Your task to perform on an android device: toggle translation in the chrome app Image 0: 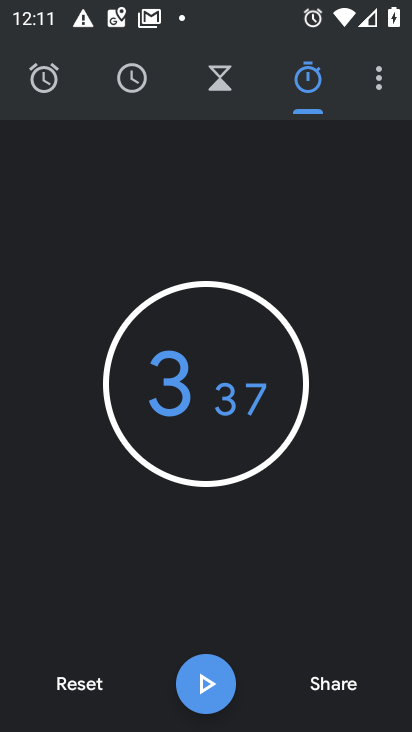
Step 0: press home button
Your task to perform on an android device: toggle translation in the chrome app Image 1: 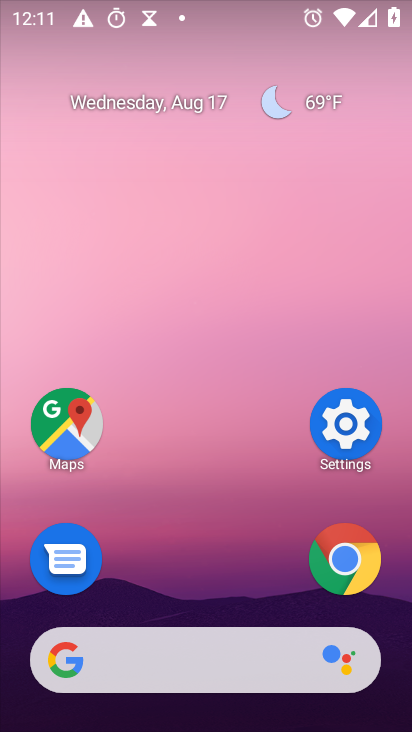
Step 1: click (351, 561)
Your task to perform on an android device: toggle translation in the chrome app Image 2: 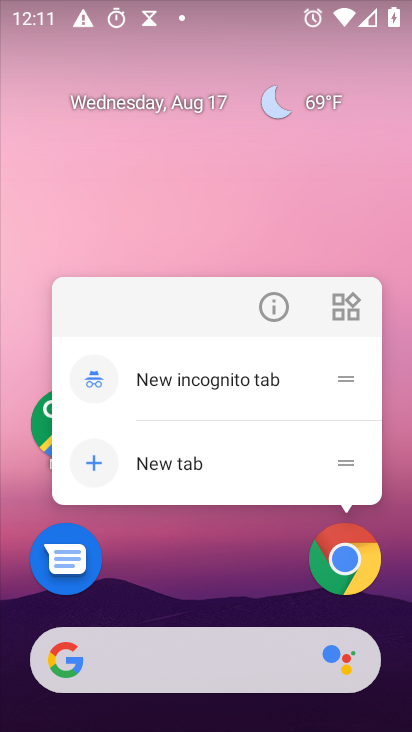
Step 2: click (351, 562)
Your task to perform on an android device: toggle translation in the chrome app Image 3: 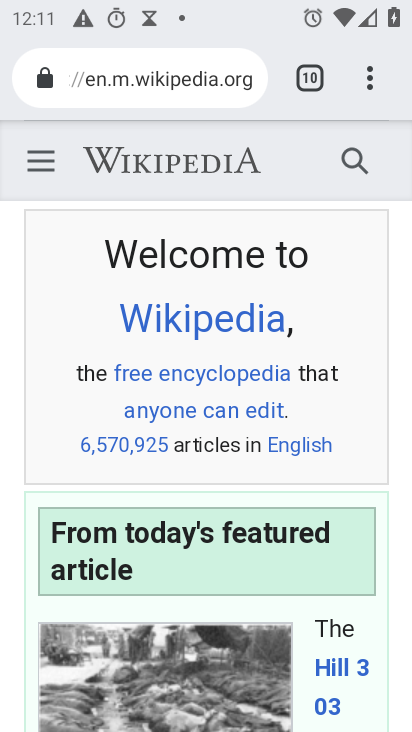
Step 3: drag from (366, 73) to (259, 627)
Your task to perform on an android device: toggle translation in the chrome app Image 4: 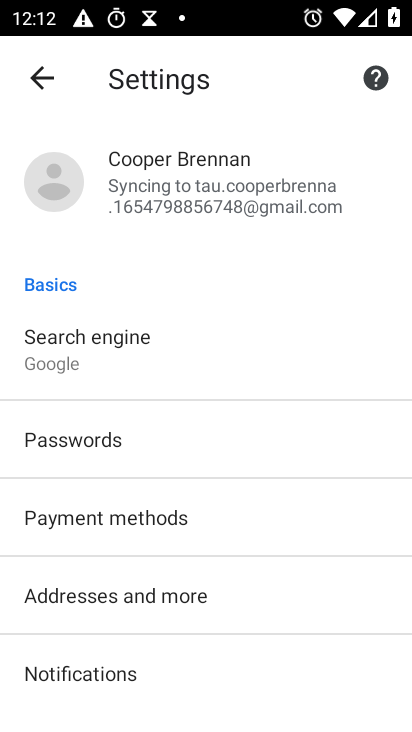
Step 4: drag from (196, 595) to (274, 137)
Your task to perform on an android device: toggle translation in the chrome app Image 5: 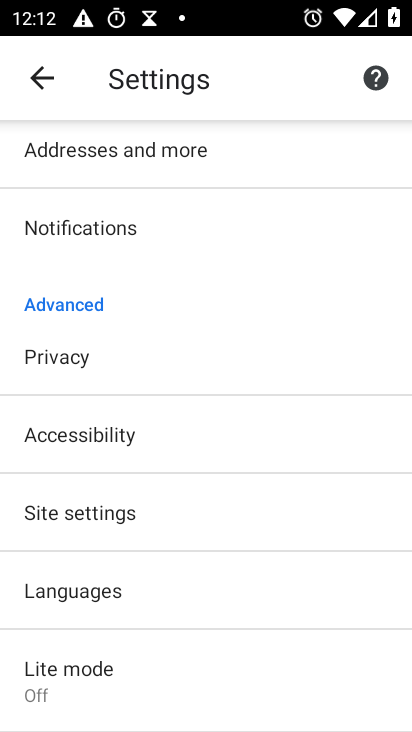
Step 5: click (88, 599)
Your task to perform on an android device: toggle translation in the chrome app Image 6: 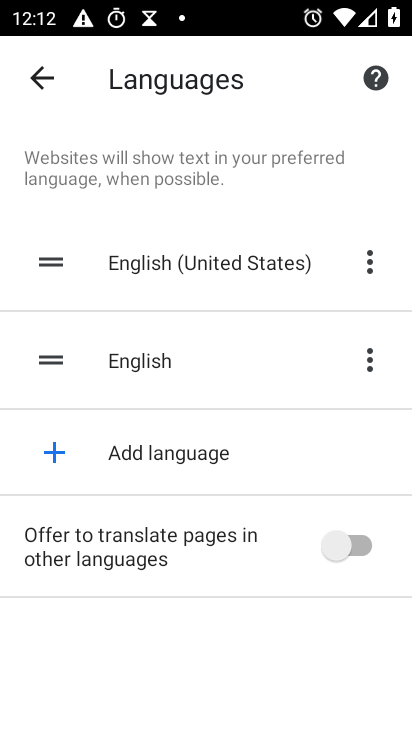
Step 6: click (360, 539)
Your task to perform on an android device: toggle translation in the chrome app Image 7: 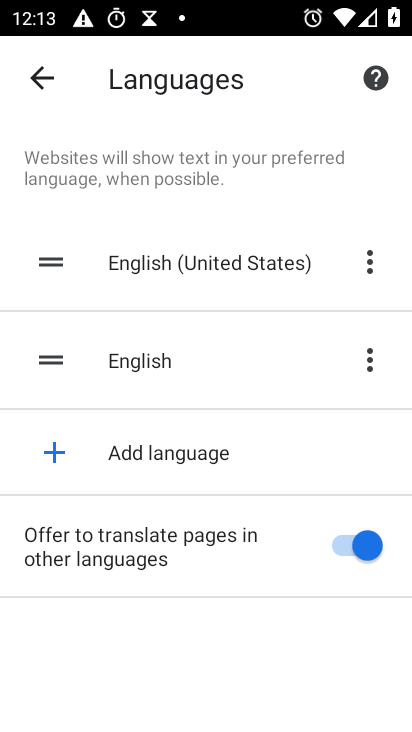
Step 7: task complete